Your task to perform on an android device: Add bose soundlink to the cart on ebay.com Image 0: 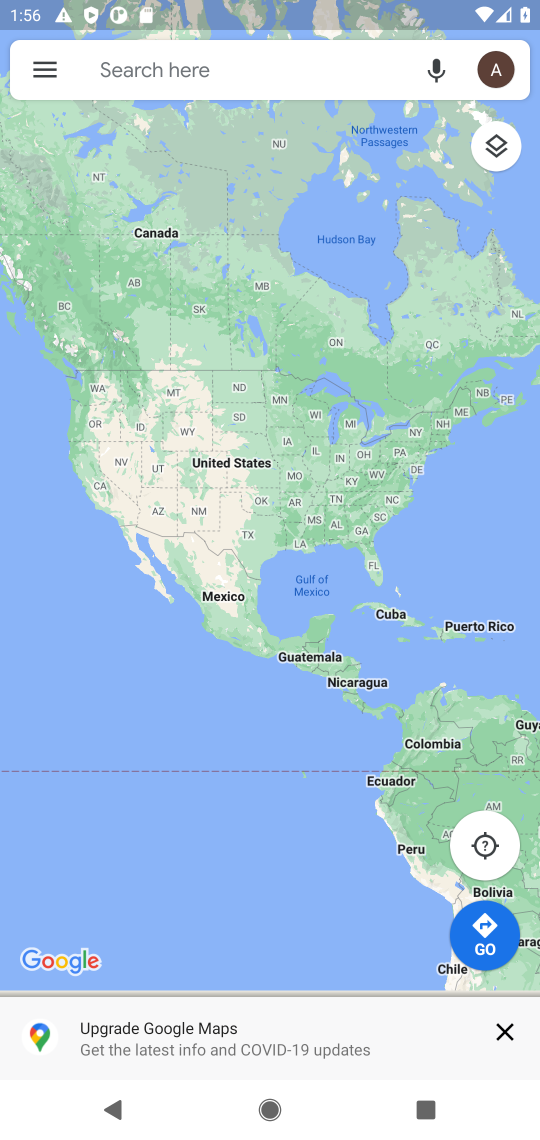
Step 0: press home button
Your task to perform on an android device: Add bose soundlink to the cart on ebay.com Image 1: 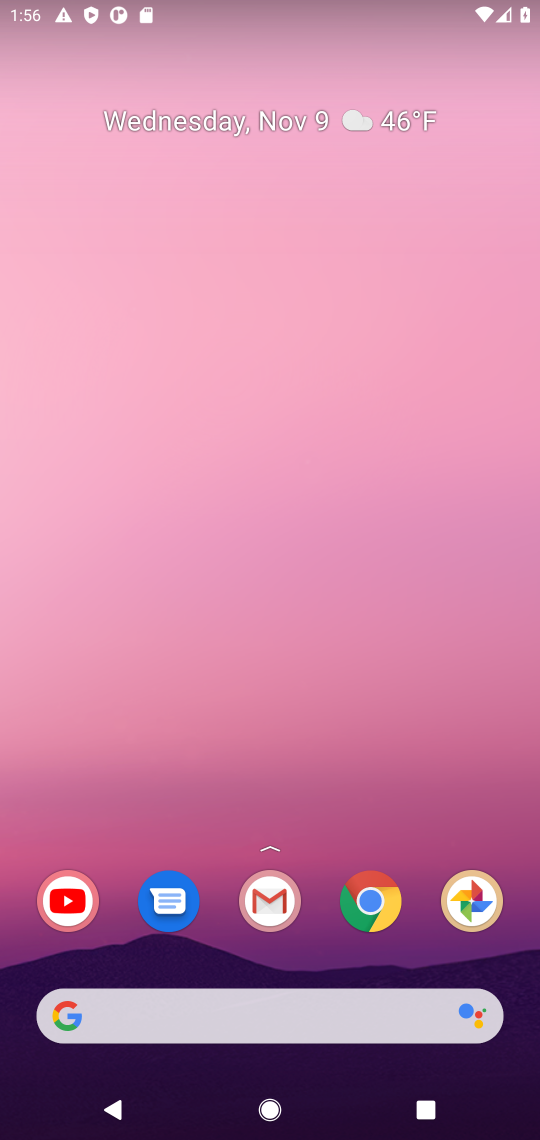
Step 1: click (372, 910)
Your task to perform on an android device: Add bose soundlink to the cart on ebay.com Image 2: 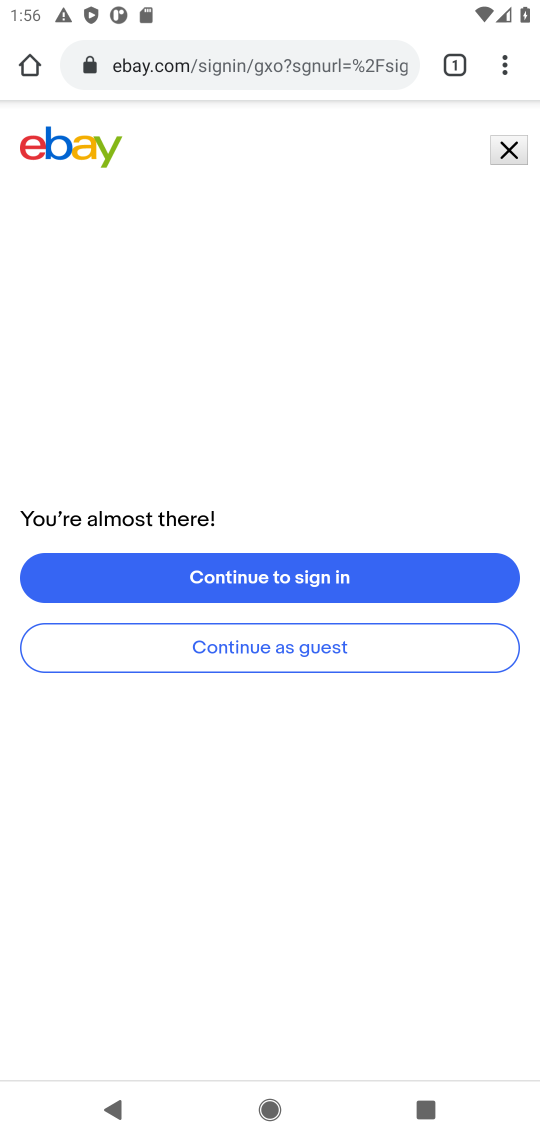
Step 2: click (506, 144)
Your task to perform on an android device: Add bose soundlink to the cart on ebay.com Image 3: 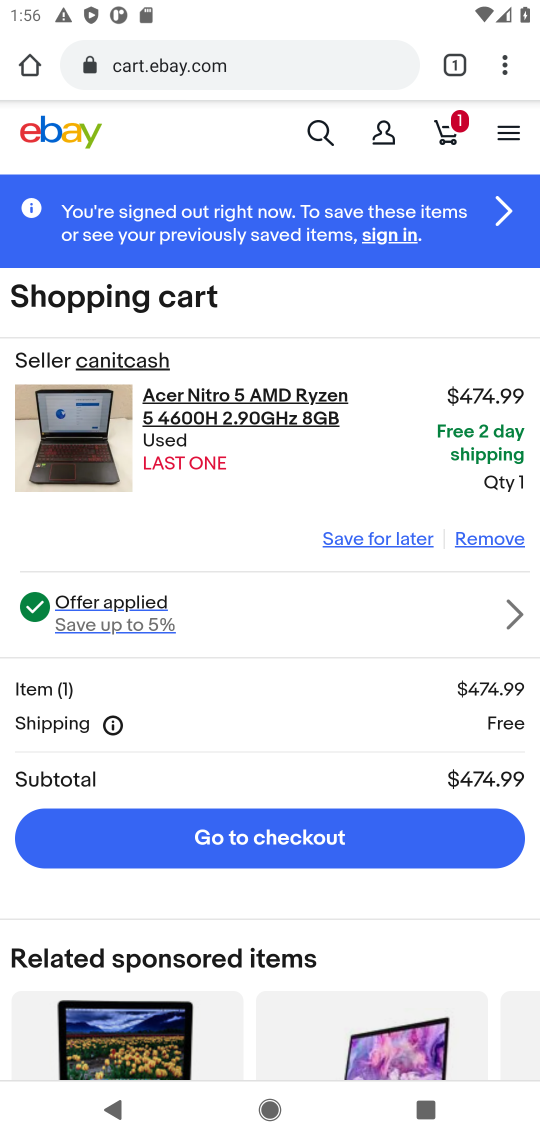
Step 3: click (318, 132)
Your task to perform on an android device: Add bose soundlink to the cart on ebay.com Image 4: 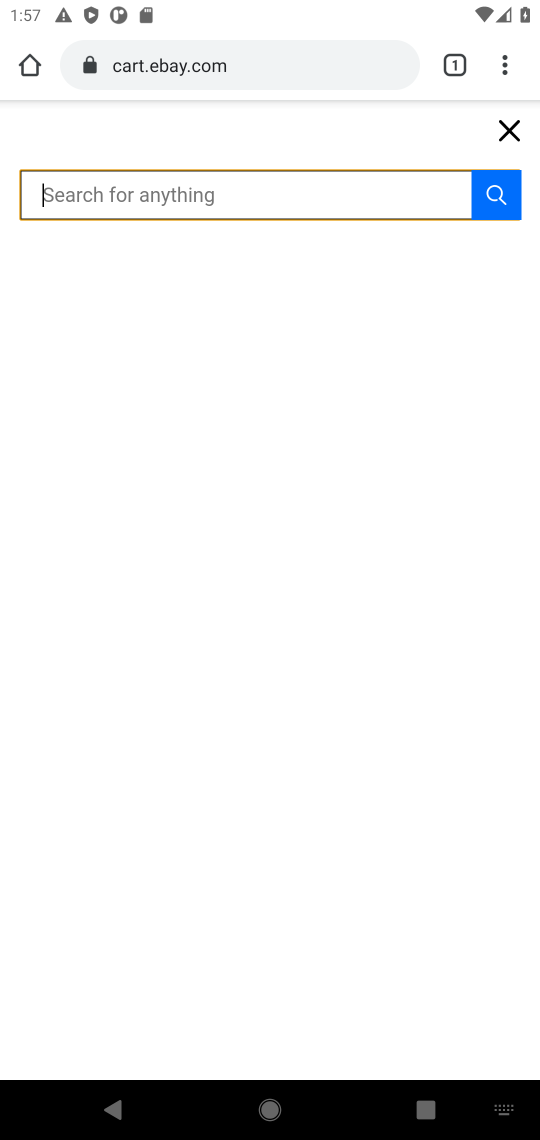
Step 4: click (229, 189)
Your task to perform on an android device: Add bose soundlink to the cart on ebay.com Image 5: 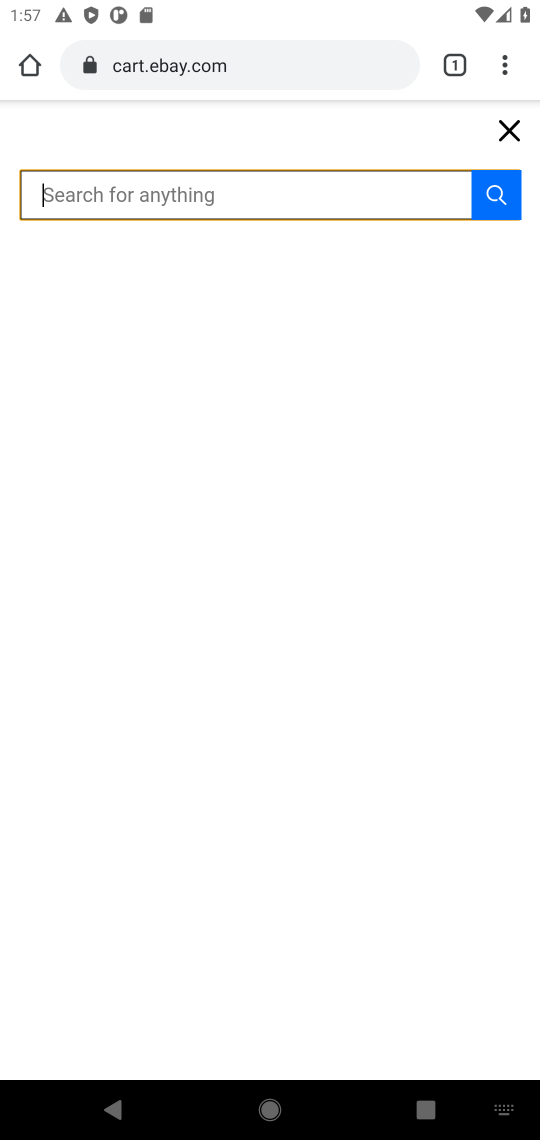
Step 5: type "bose soundlink"
Your task to perform on an android device: Add bose soundlink to the cart on ebay.com Image 6: 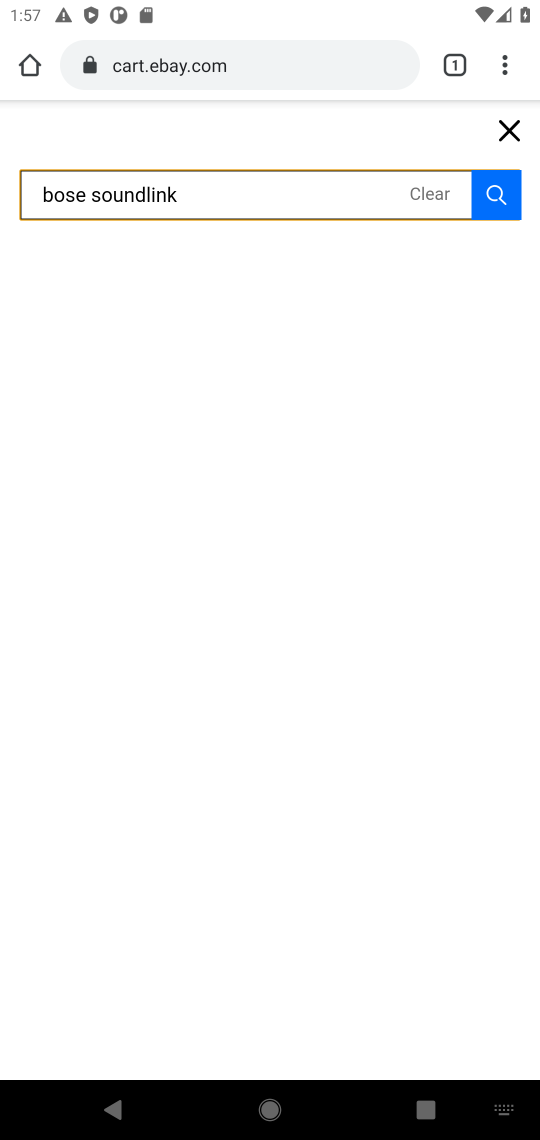
Step 6: click (353, 194)
Your task to perform on an android device: Add bose soundlink to the cart on ebay.com Image 7: 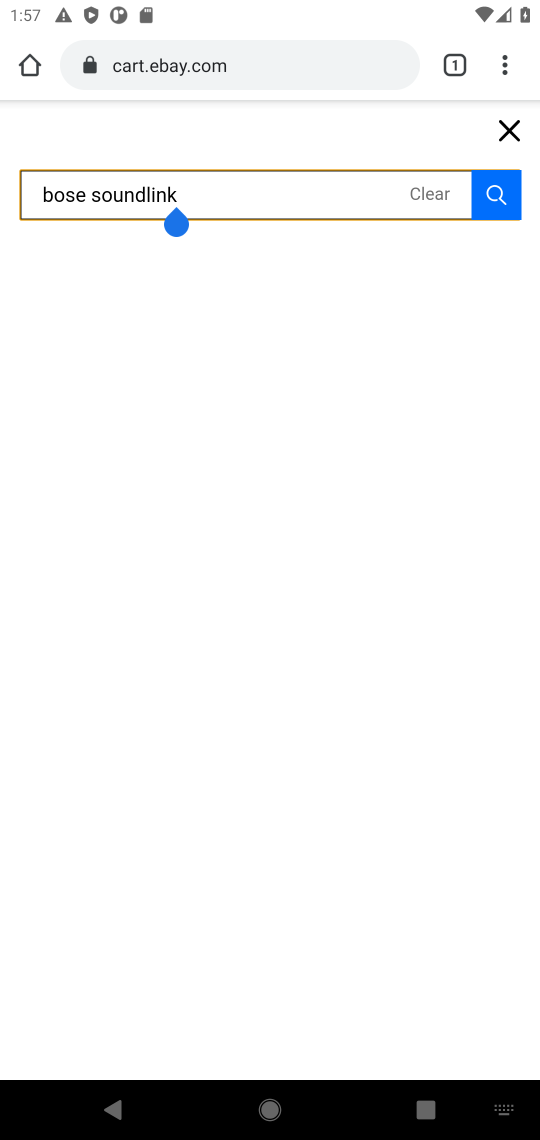
Step 7: click (383, 314)
Your task to perform on an android device: Add bose soundlink to the cart on ebay.com Image 8: 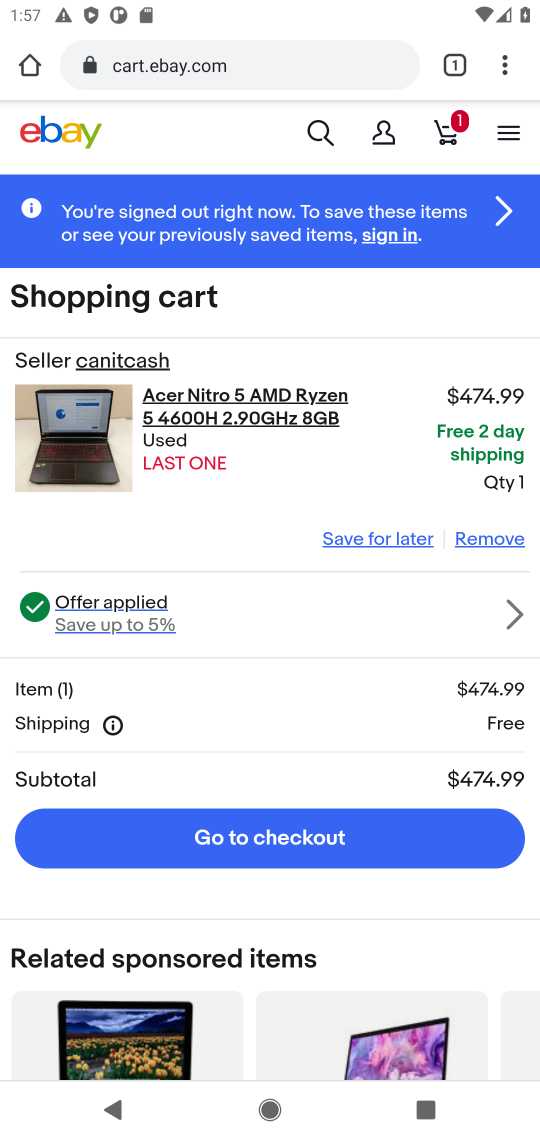
Step 8: click (313, 136)
Your task to perform on an android device: Add bose soundlink to the cart on ebay.com Image 9: 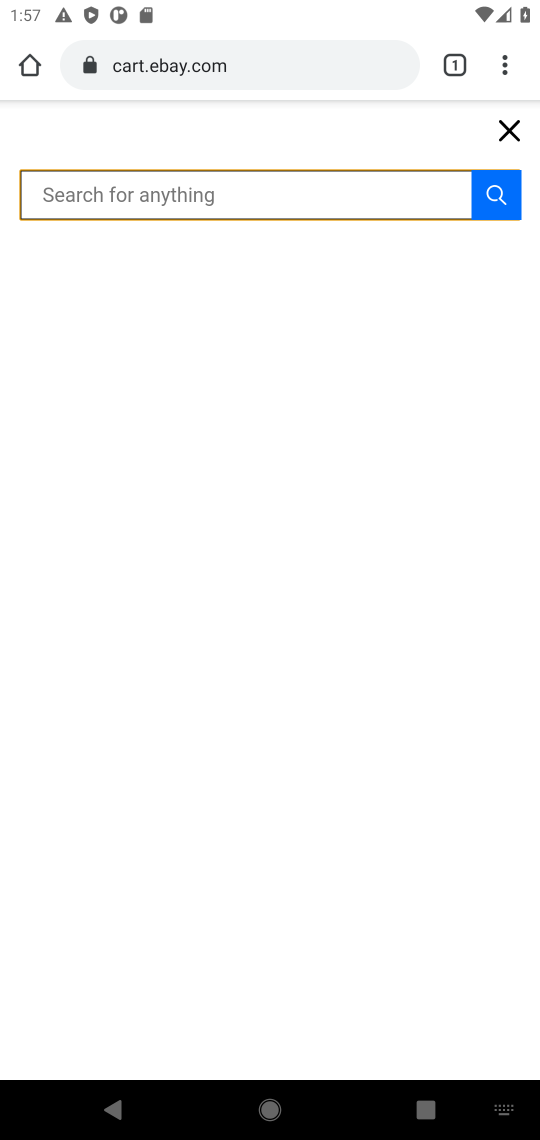
Step 9: type "bose soundlink"
Your task to perform on an android device: Add bose soundlink to the cart on ebay.com Image 10: 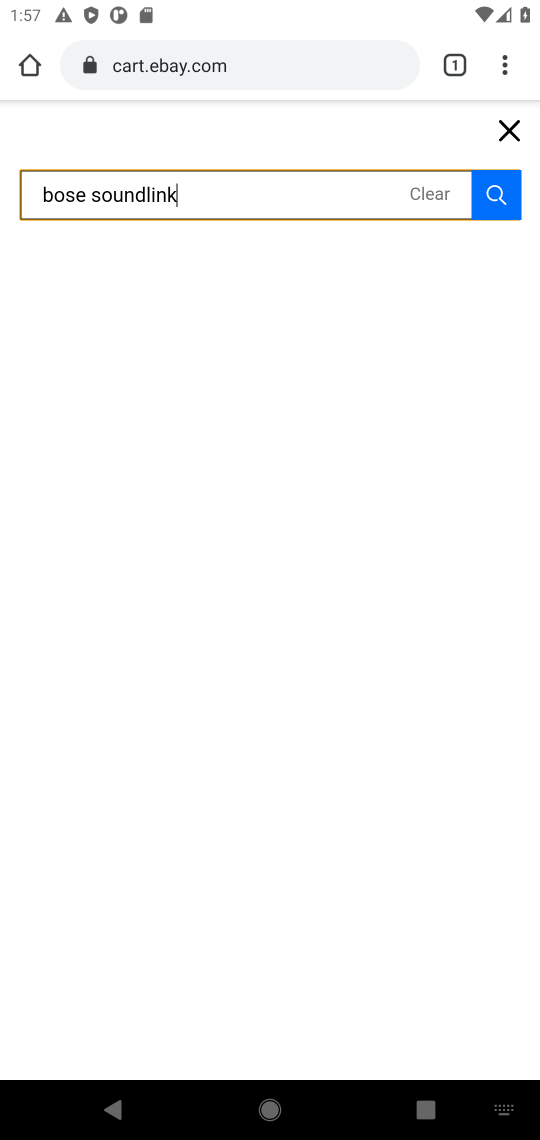
Step 10: click (376, 197)
Your task to perform on an android device: Add bose soundlink to the cart on ebay.com Image 11: 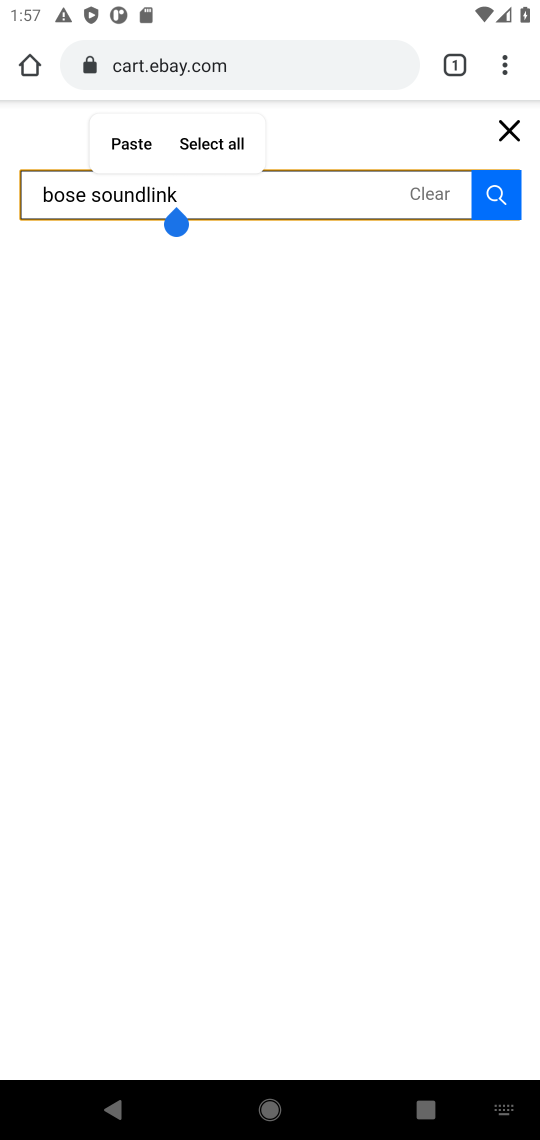
Step 11: task complete